Your task to perform on an android device: toggle notifications settings in the gmail app Image 0: 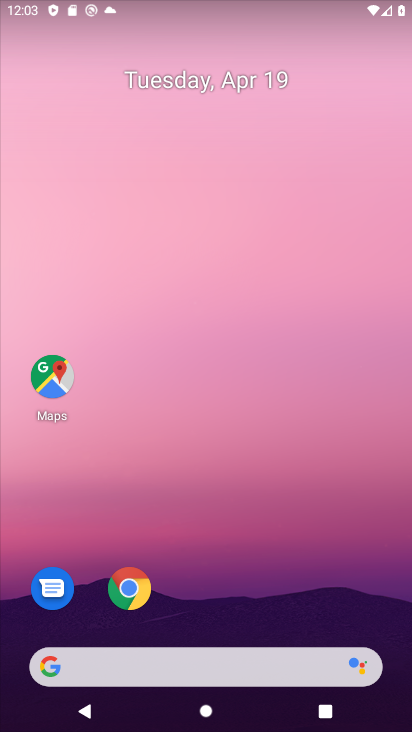
Step 0: drag from (386, 644) to (365, 76)
Your task to perform on an android device: toggle notifications settings in the gmail app Image 1: 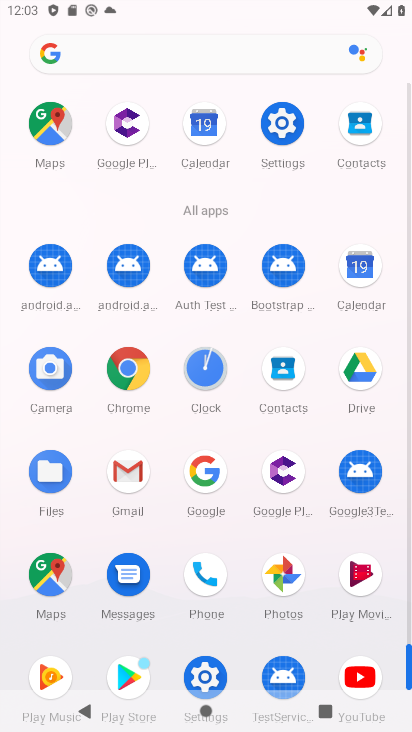
Step 1: click (123, 470)
Your task to perform on an android device: toggle notifications settings in the gmail app Image 2: 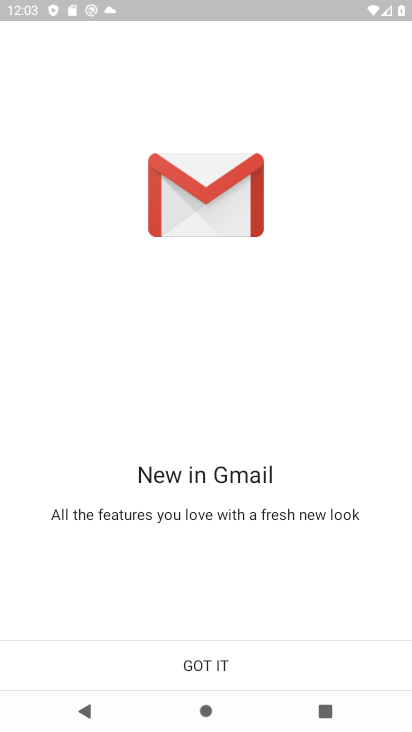
Step 2: click (196, 659)
Your task to perform on an android device: toggle notifications settings in the gmail app Image 3: 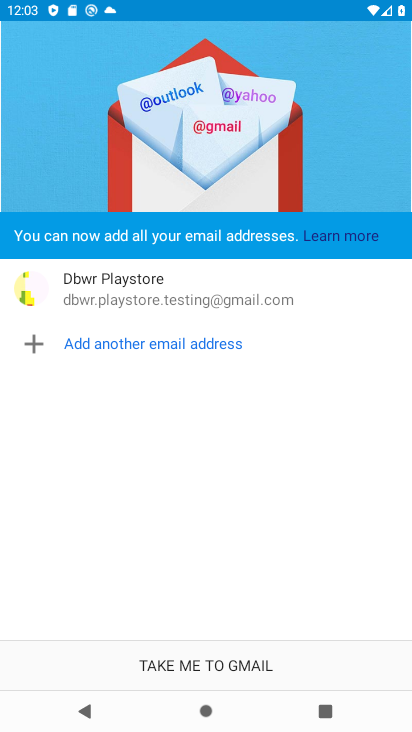
Step 3: click (196, 659)
Your task to perform on an android device: toggle notifications settings in the gmail app Image 4: 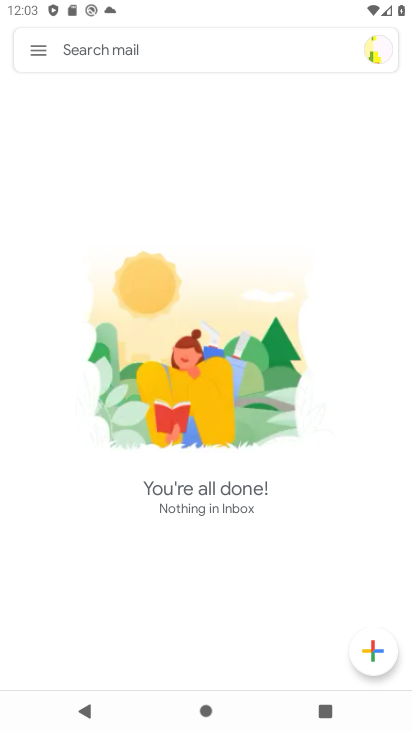
Step 4: click (39, 52)
Your task to perform on an android device: toggle notifications settings in the gmail app Image 5: 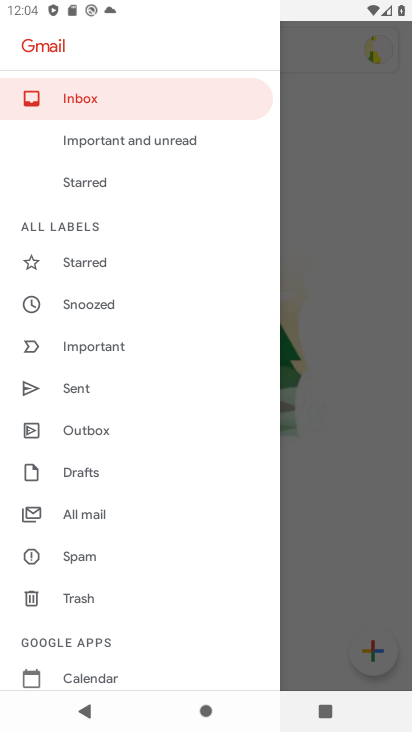
Step 5: drag from (132, 615) to (187, 275)
Your task to perform on an android device: toggle notifications settings in the gmail app Image 6: 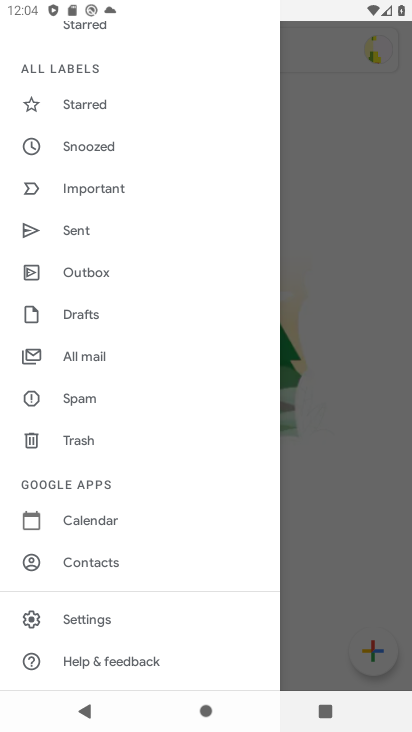
Step 6: click (92, 611)
Your task to perform on an android device: toggle notifications settings in the gmail app Image 7: 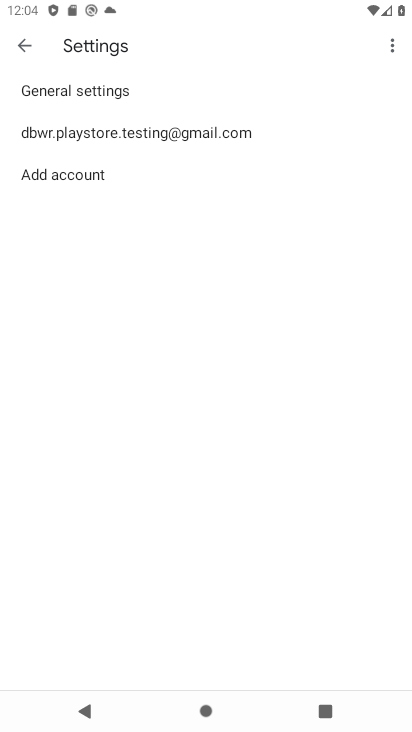
Step 7: click (124, 134)
Your task to perform on an android device: toggle notifications settings in the gmail app Image 8: 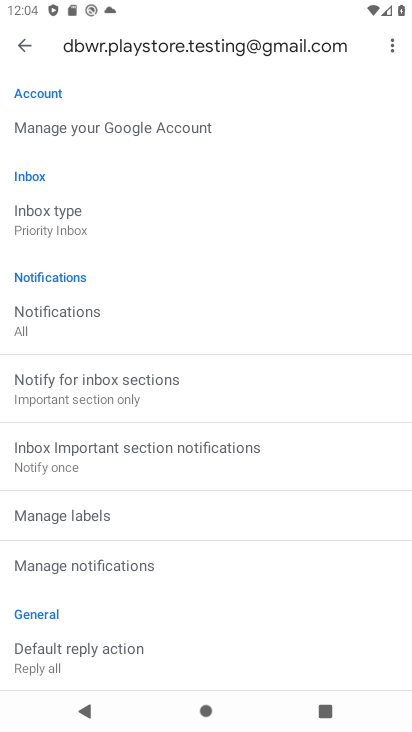
Step 8: click (80, 562)
Your task to perform on an android device: toggle notifications settings in the gmail app Image 9: 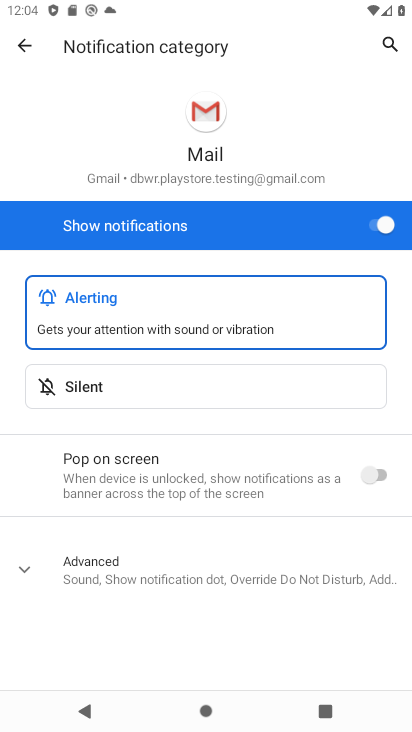
Step 9: click (371, 225)
Your task to perform on an android device: toggle notifications settings in the gmail app Image 10: 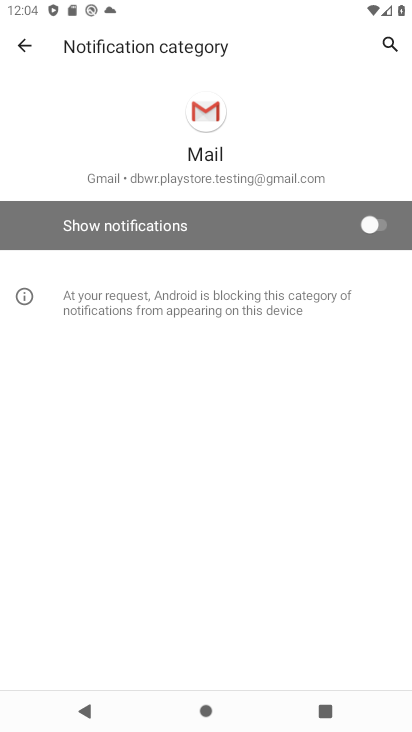
Step 10: task complete